Your task to perform on an android device: open app "Google Keep" Image 0: 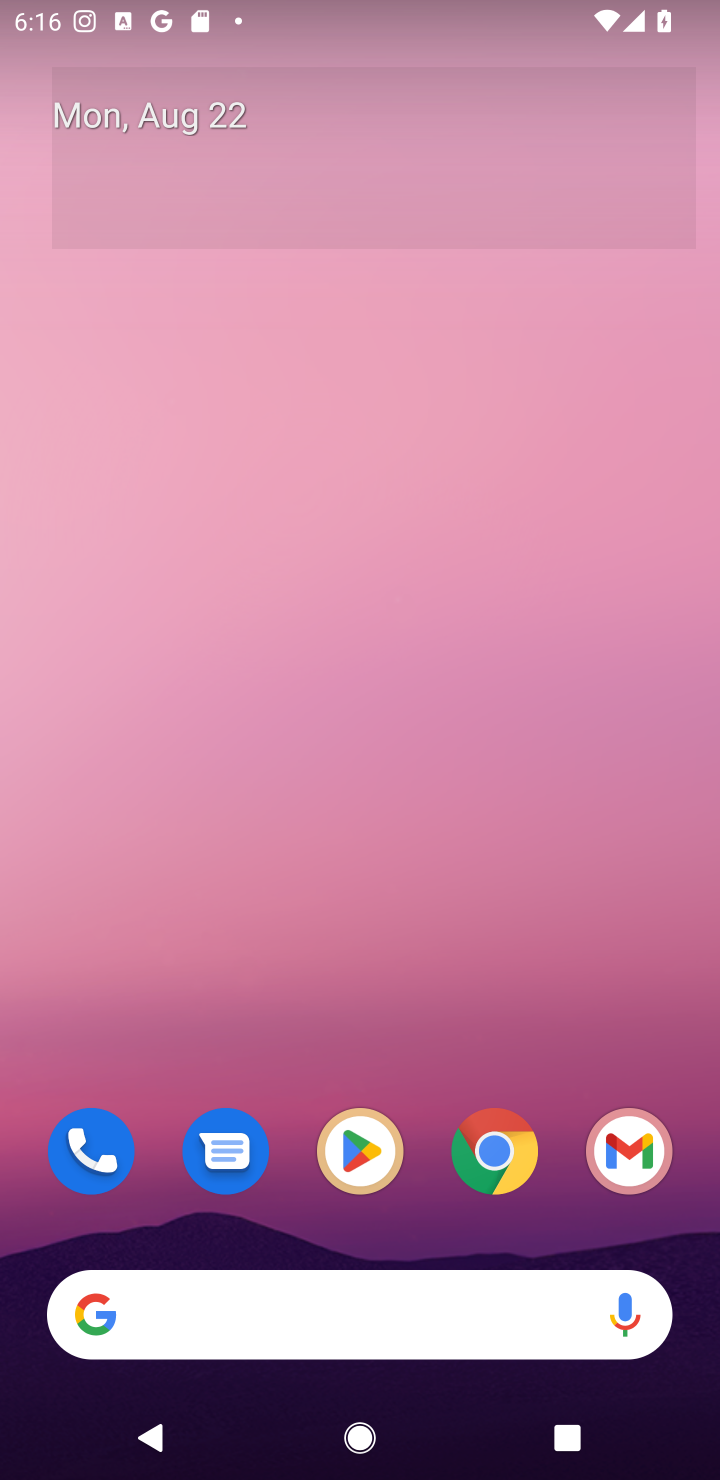
Step 0: press home button
Your task to perform on an android device: open app "Google Keep" Image 1: 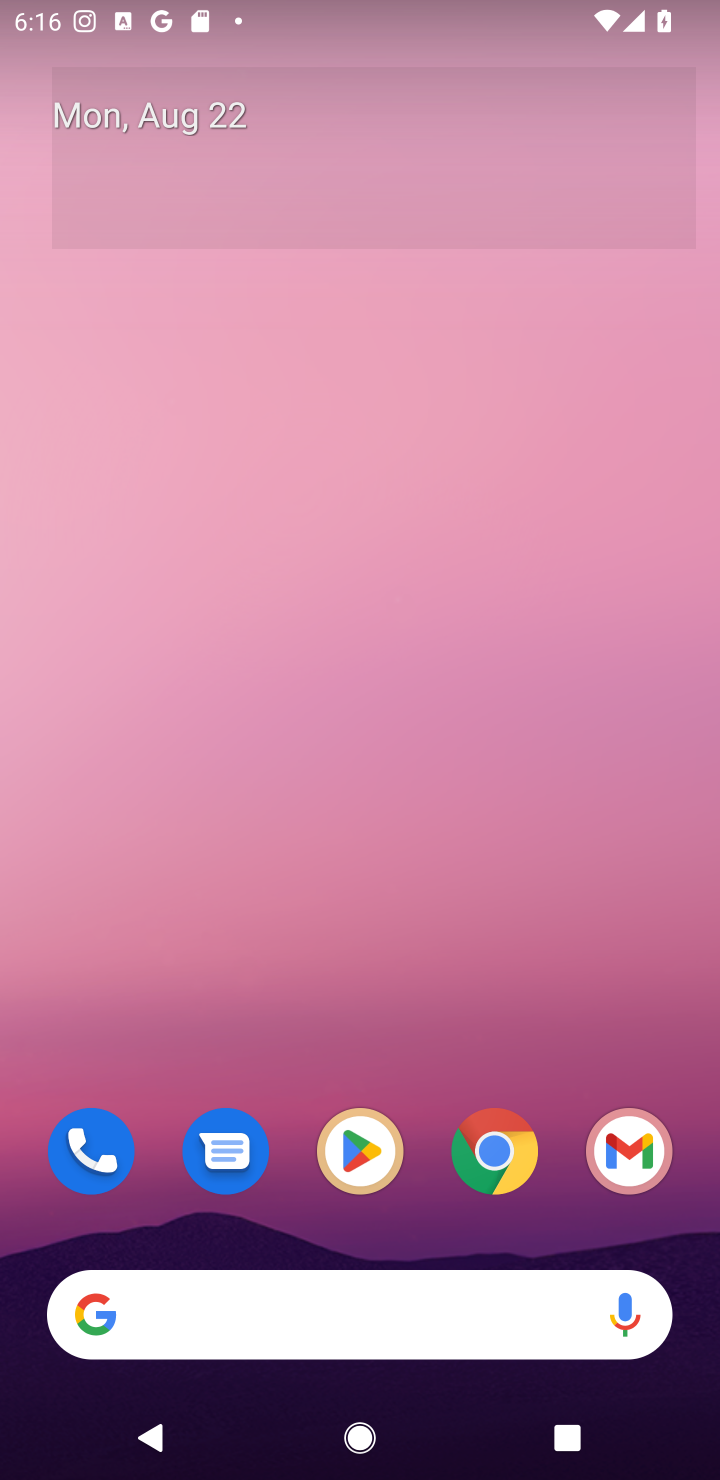
Step 1: click (356, 1164)
Your task to perform on an android device: open app "Google Keep" Image 2: 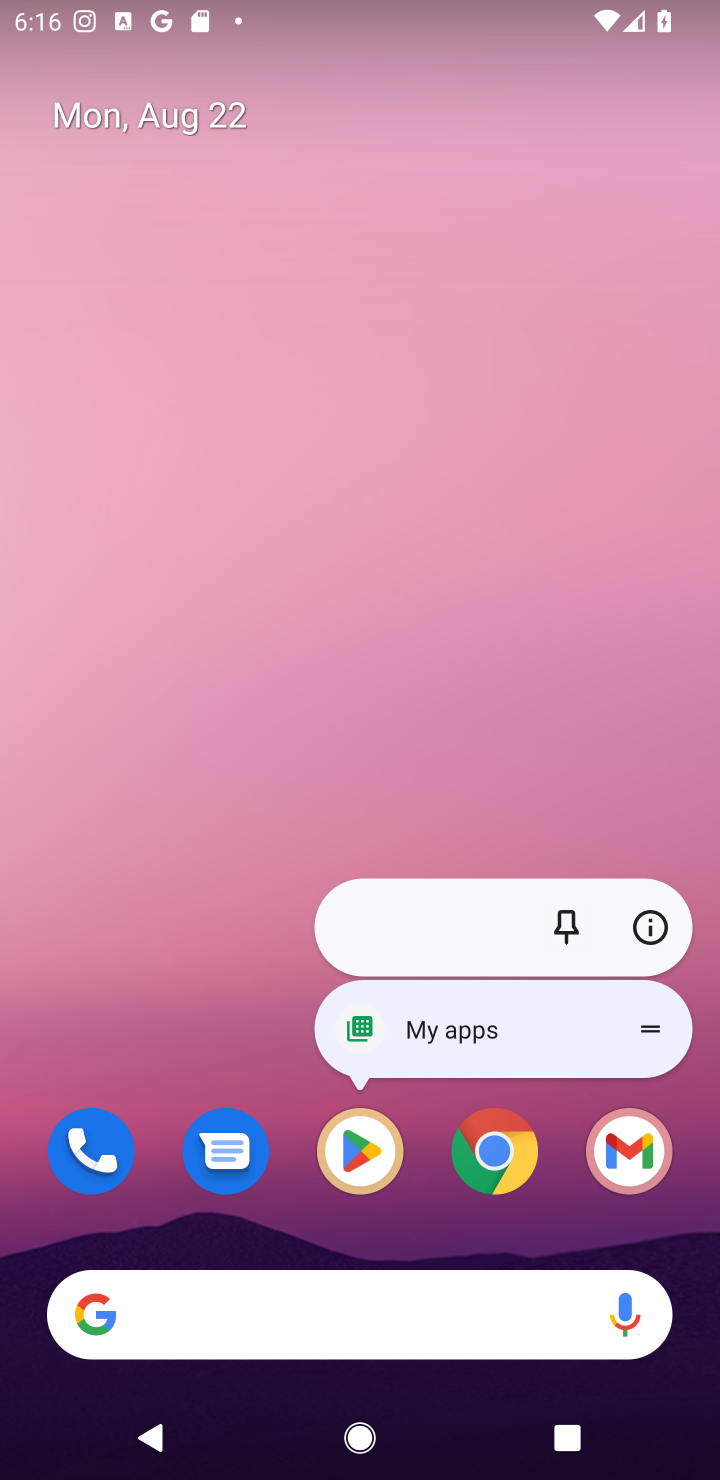
Step 2: click (356, 1169)
Your task to perform on an android device: open app "Google Keep" Image 3: 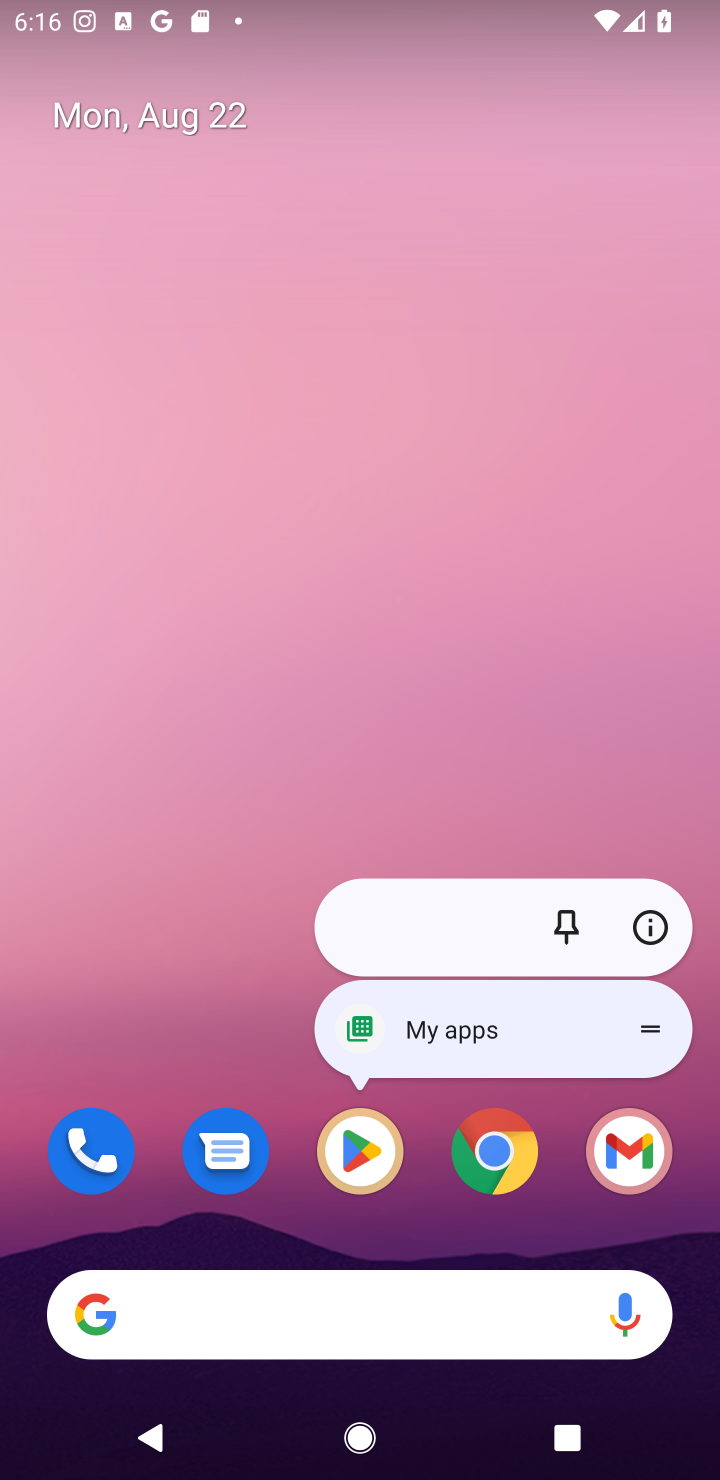
Step 3: click (360, 1155)
Your task to perform on an android device: open app "Google Keep" Image 4: 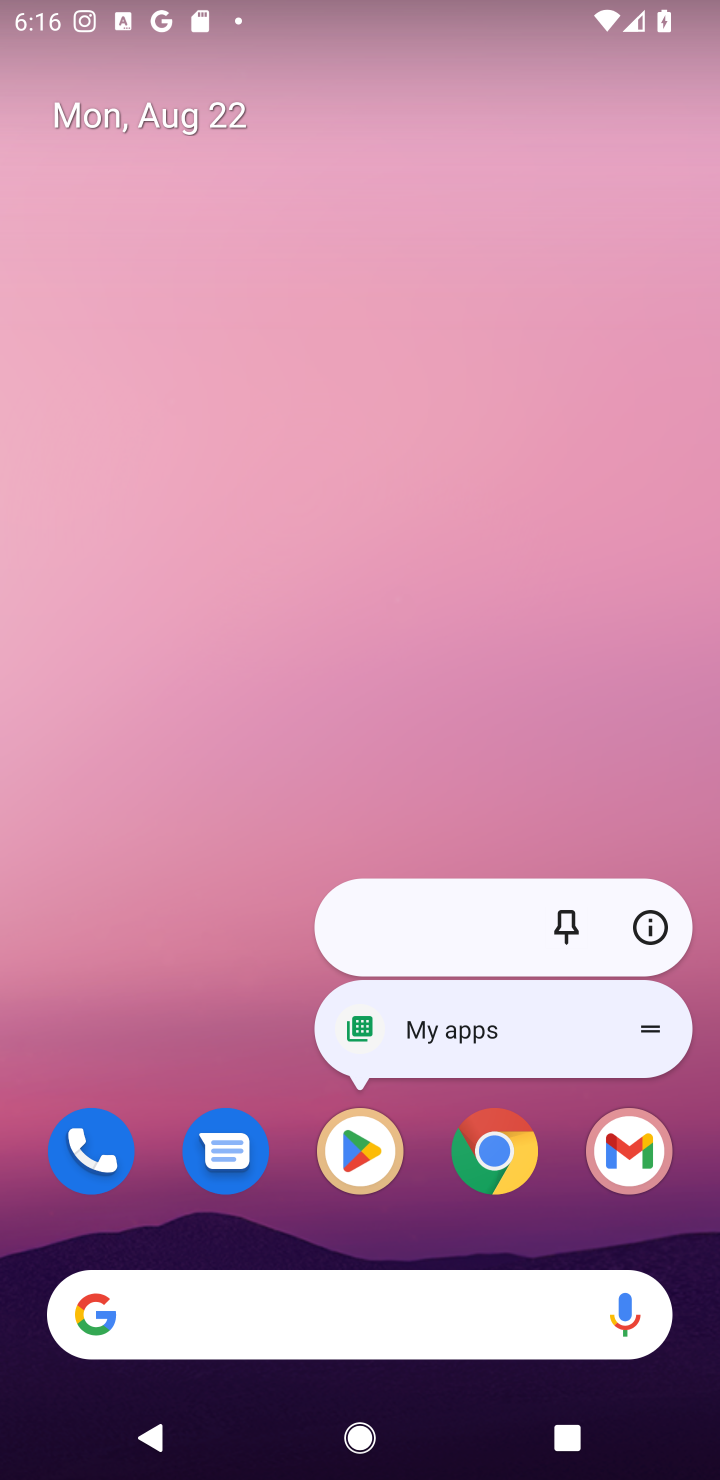
Step 4: click (360, 1155)
Your task to perform on an android device: open app "Google Keep" Image 5: 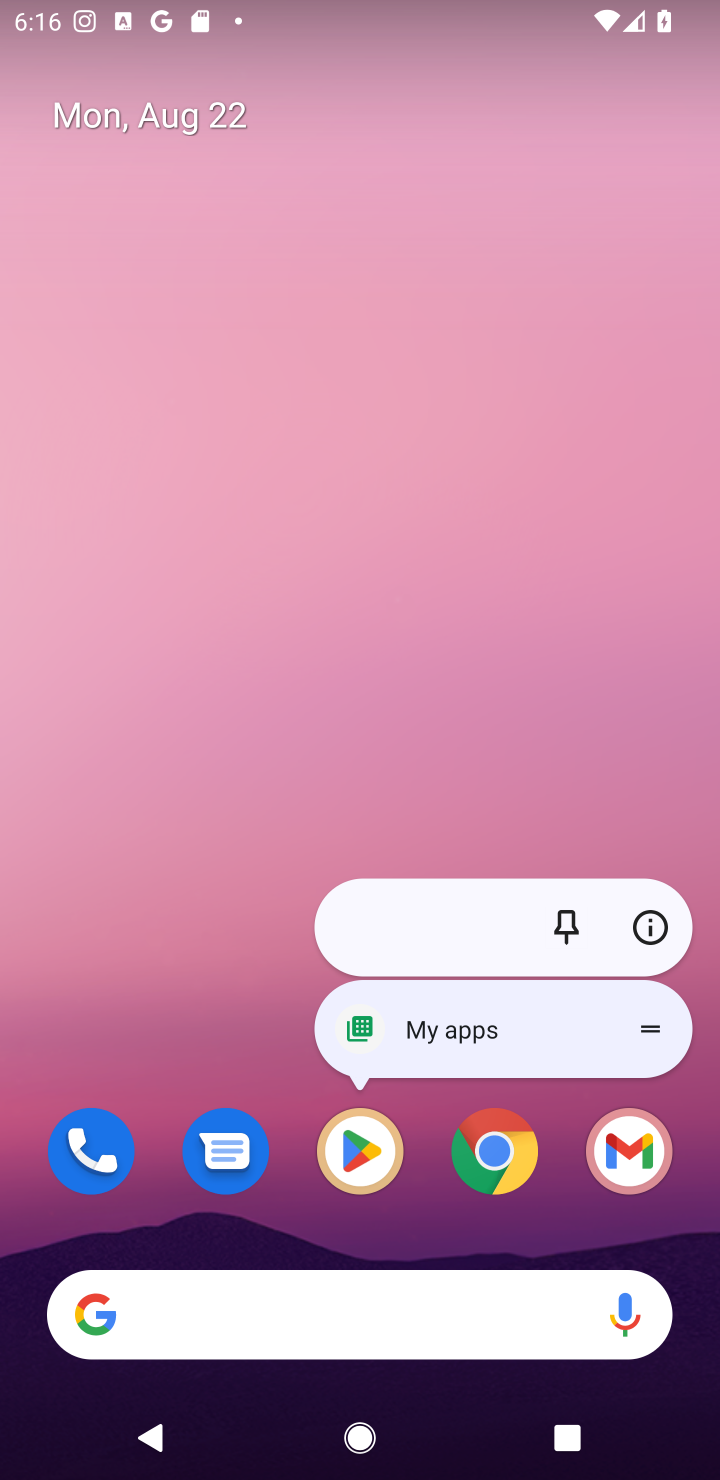
Step 5: click (365, 1146)
Your task to perform on an android device: open app "Google Keep" Image 6: 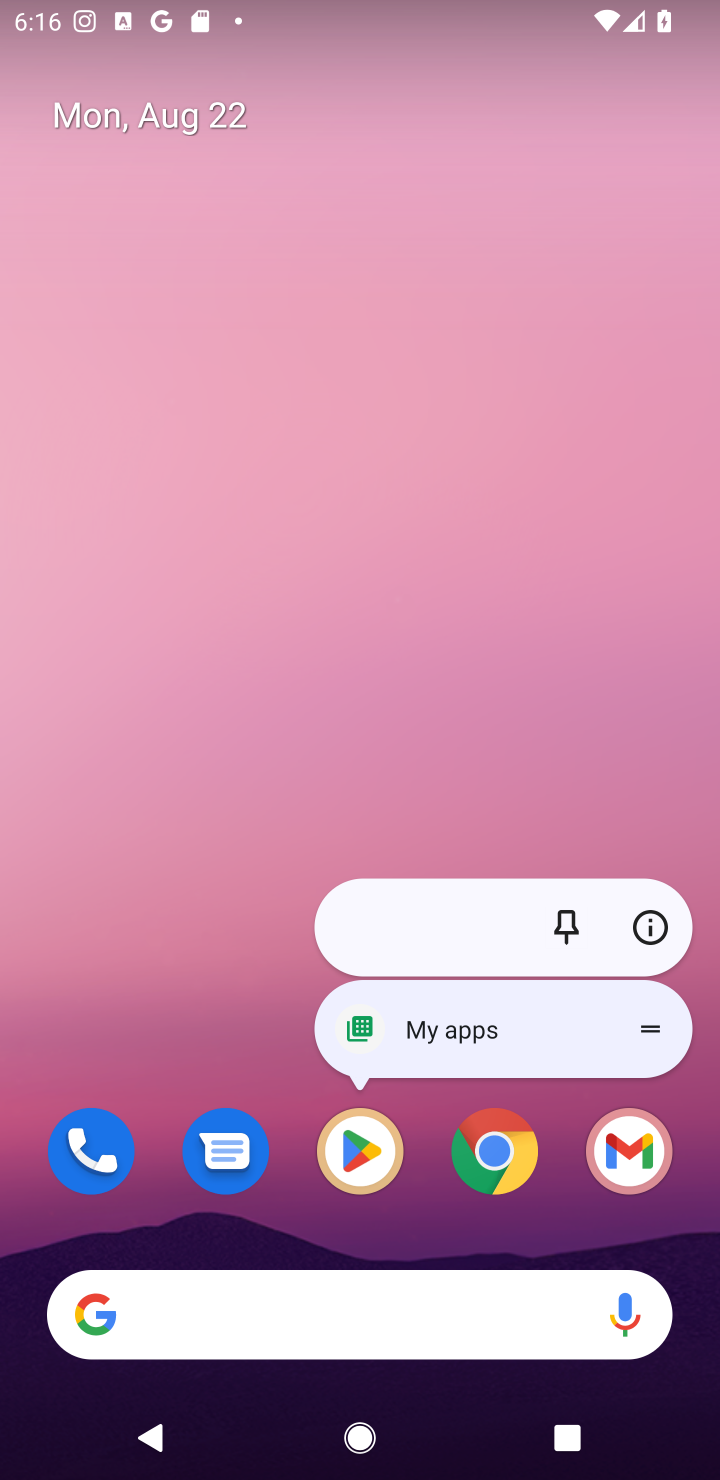
Step 6: click (350, 1146)
Your task to perform on an android device: open app "Google Keep" Image 7: 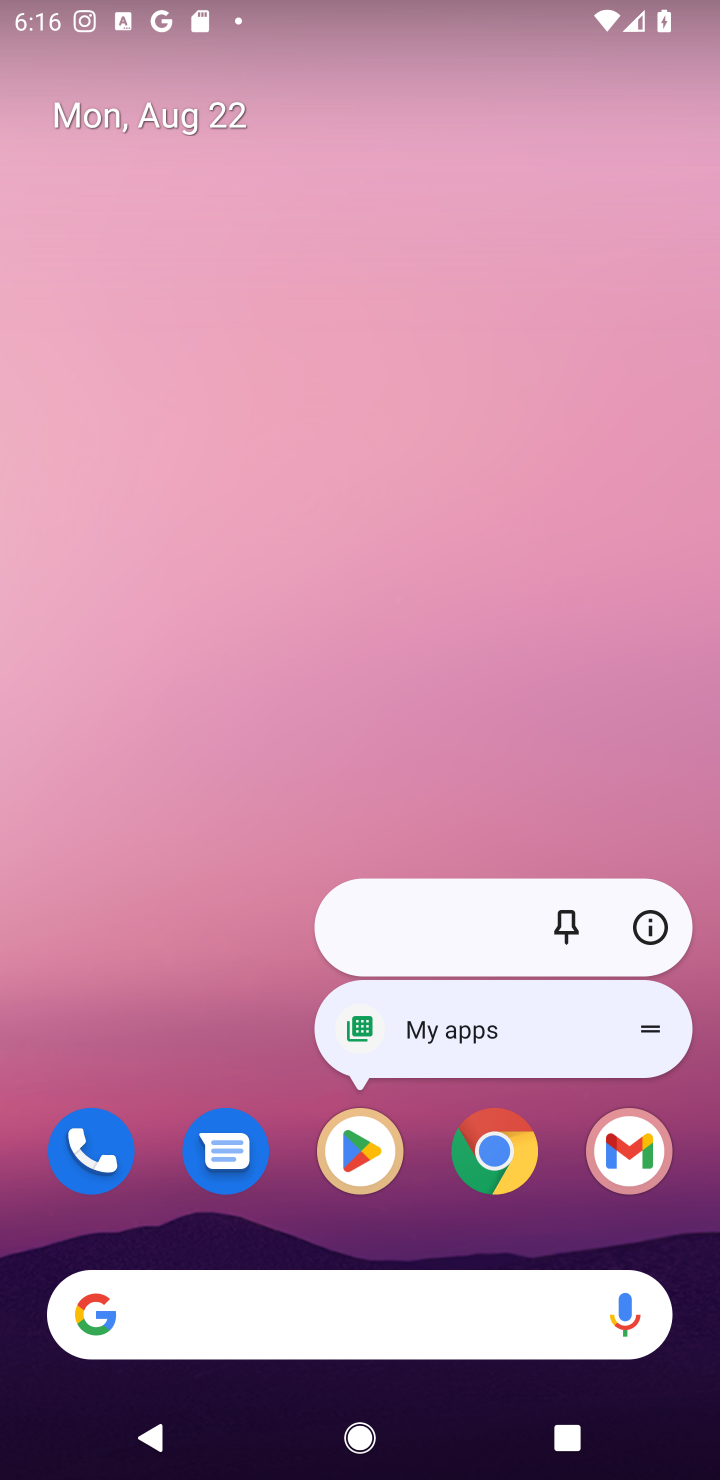
Step 7: click (350, 1144)
Your task to perform on an android device: open app "Google Keep" Image 8: 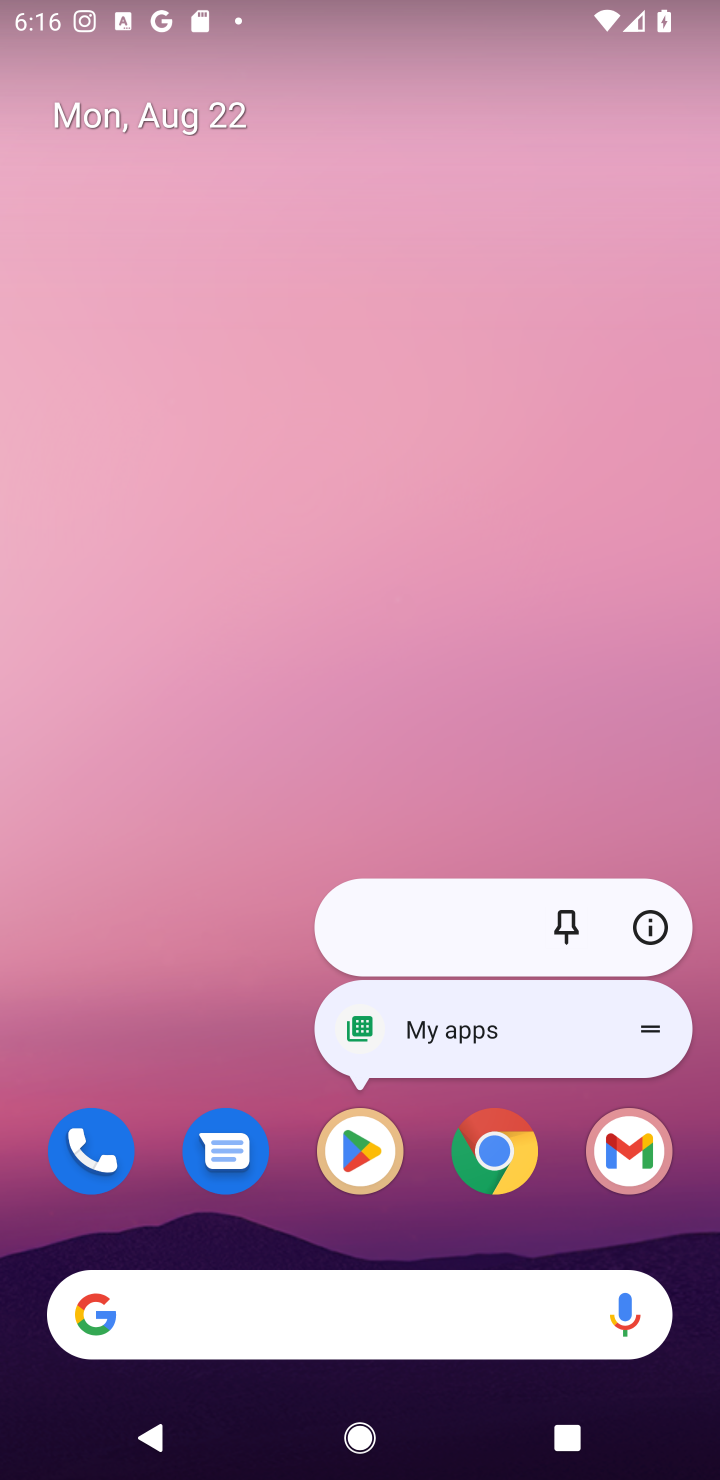
Step 8: click (350, 1150)
Your task to perform on an android device: open app "Google Keep" Image 9: 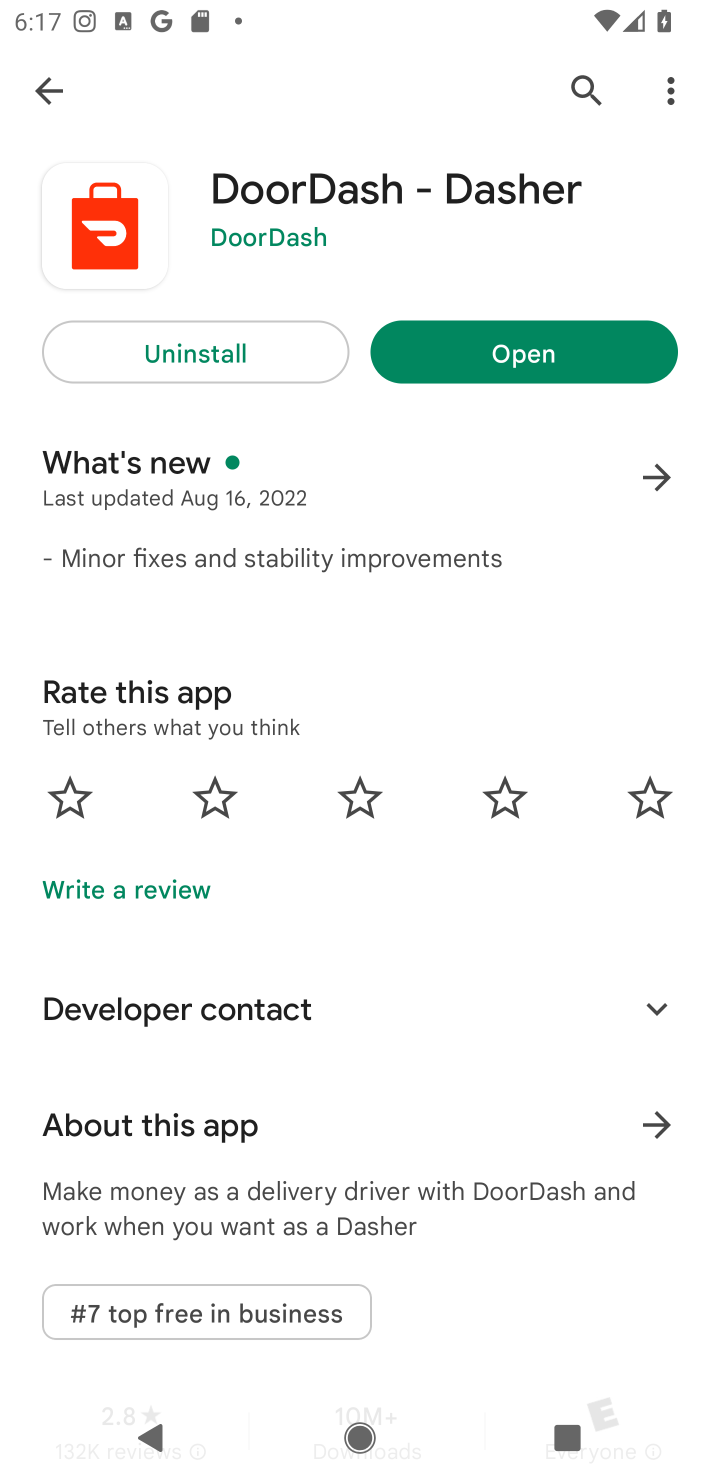
Step 9: click (584, 76)
Your task to perform on an android device: open app "Google Keep" Image 10: 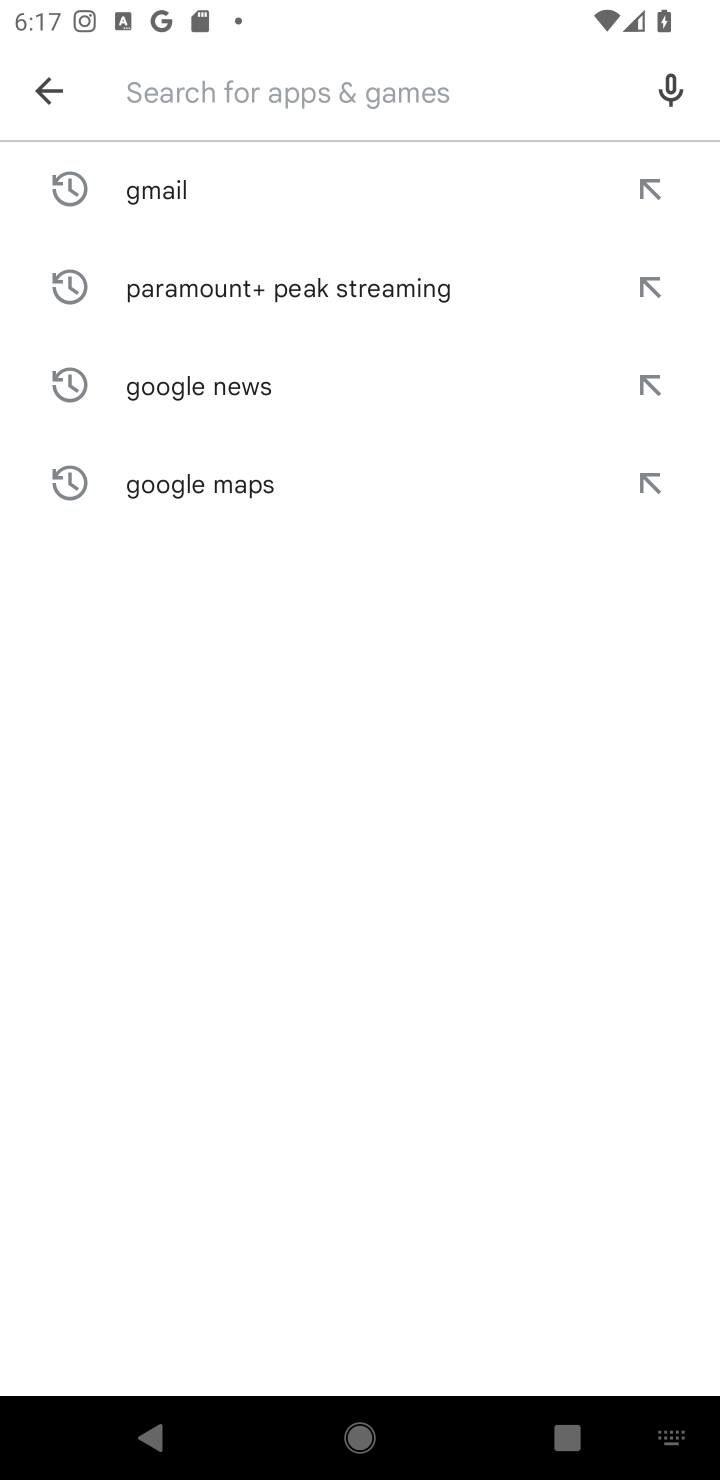
Step 10: type "Google Keep"
Your task to perform on an android device: open app "Google Keep" Image 11: 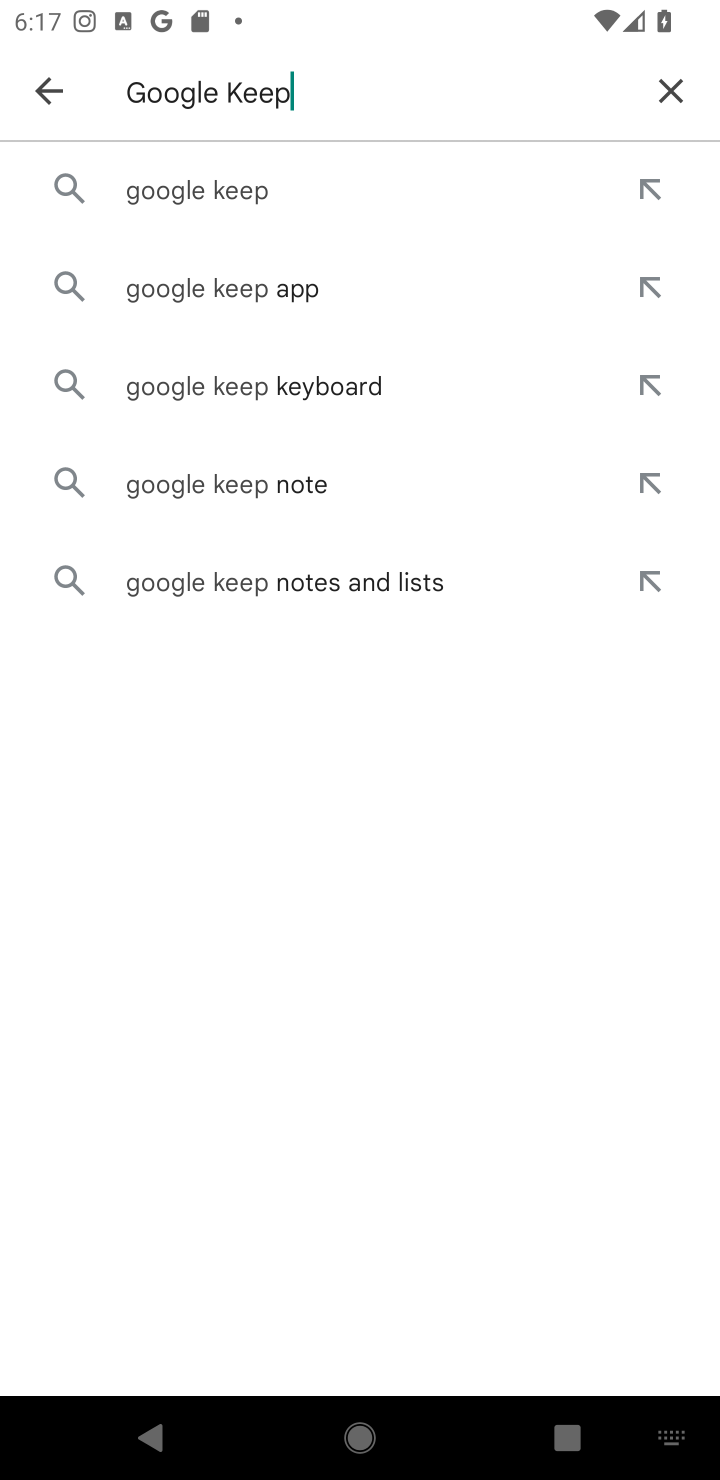
Step 11: click (215, 185)
Your task to perform on an android device: open app "Google Keep" Image 12: 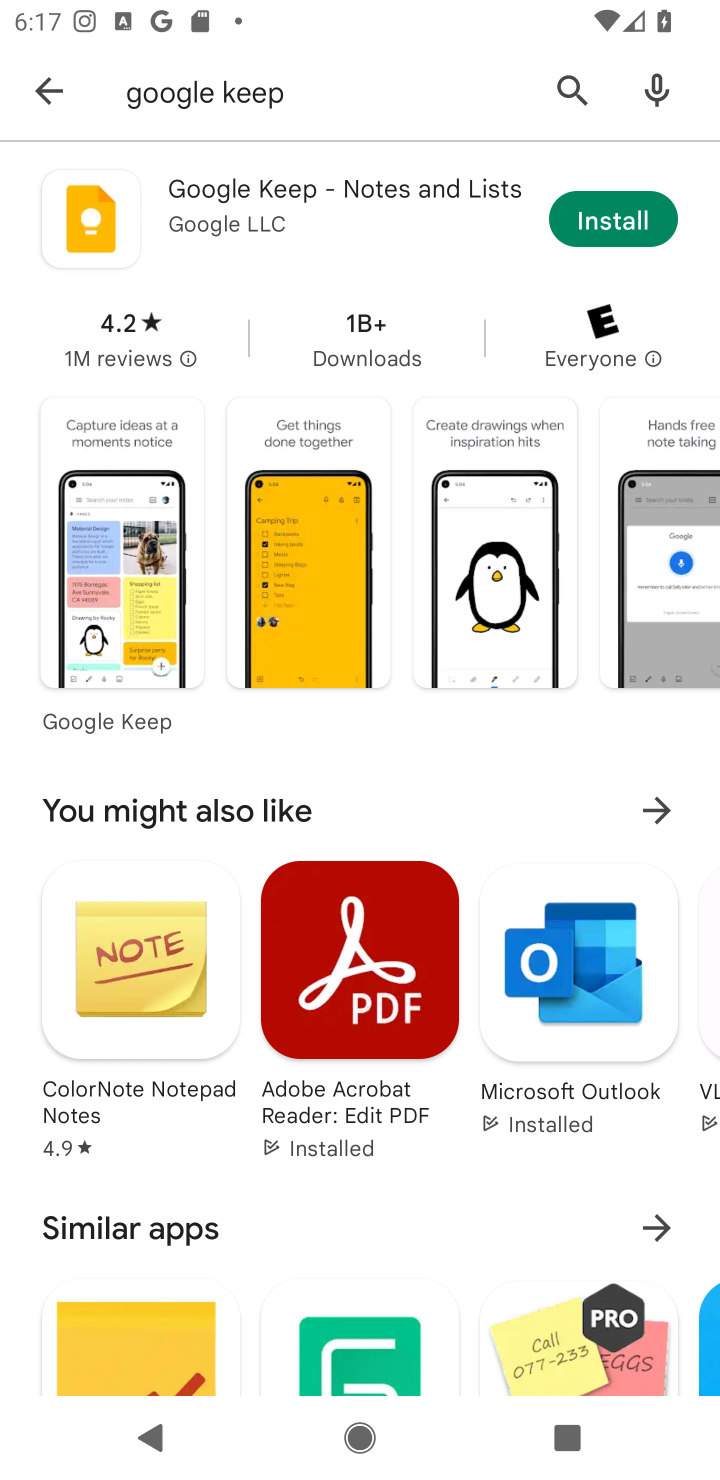
Step 12: task complete